Your task to perform on an android device: What's on my calendar tomorrow? Image 0: 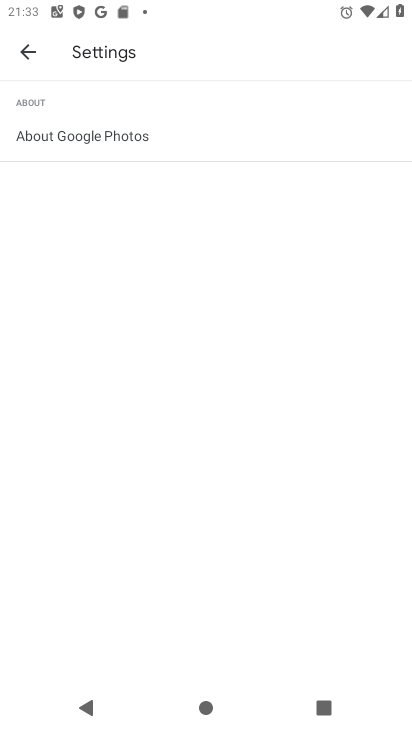
Step 0: press home button
Your task to perform on an android device: What's on my calendar tomorrow? Image 1: 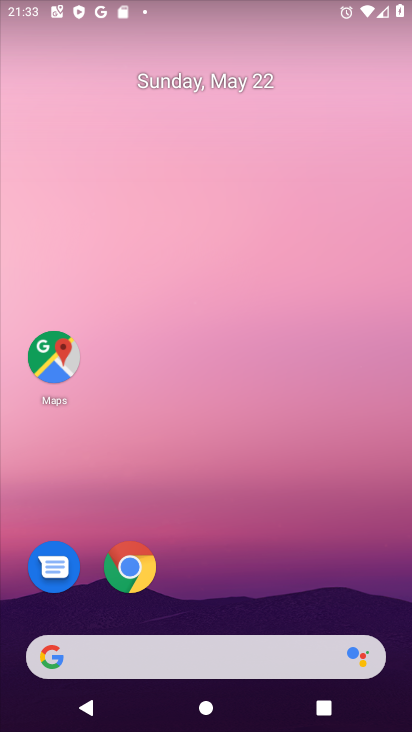
Step 1: drag from (201, 621) to (244, 6)
Your task to perform on an android device: What's on my calendar tomorrow? Image 2: 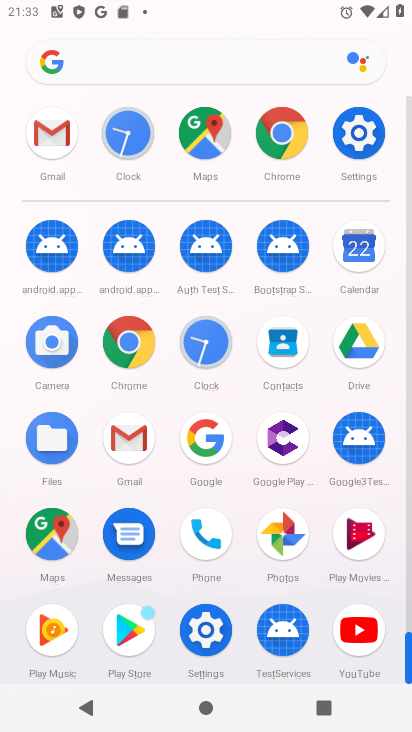
Step 2: click (352, 257)
Your task to perform on an android device: What's on my calendar tomorrow? Image 3: 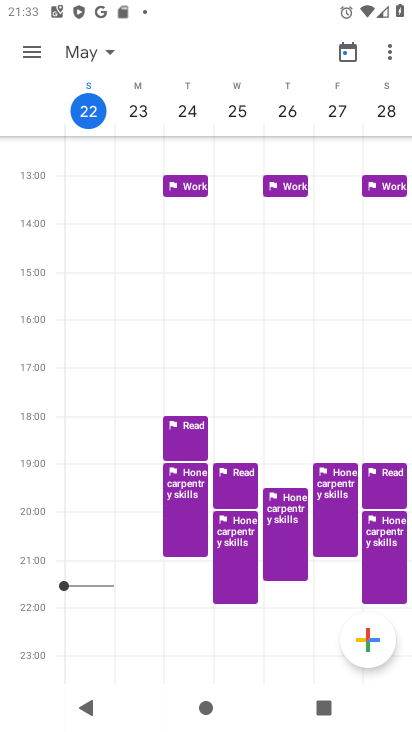
Step 3: click (28, 47)
Your task to perform on an android device: What's on my calendar tomorrow? Image 4: 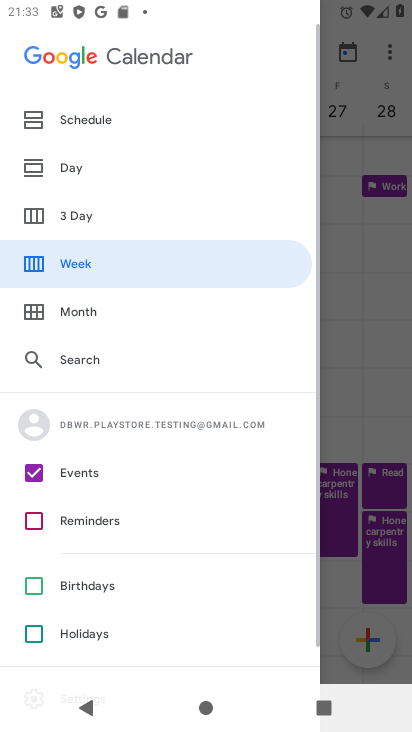
Step 4: click (120, 216)
Your task to perform on an android device: What's on my calendar tomorrow? Image 5: 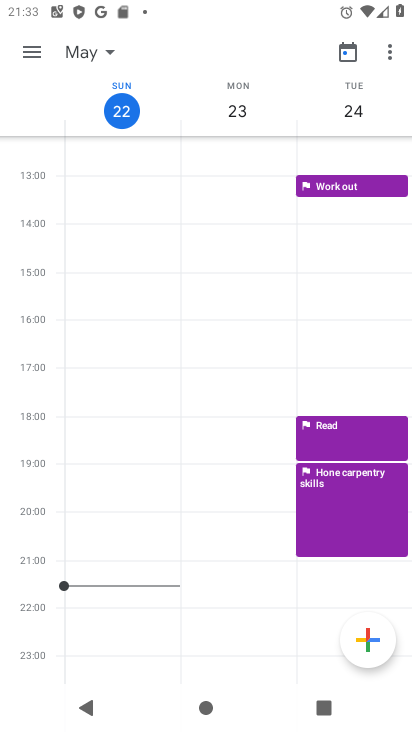
Step 5: task complete